Your task to perform on an android device: Open Google Maps Image 0: 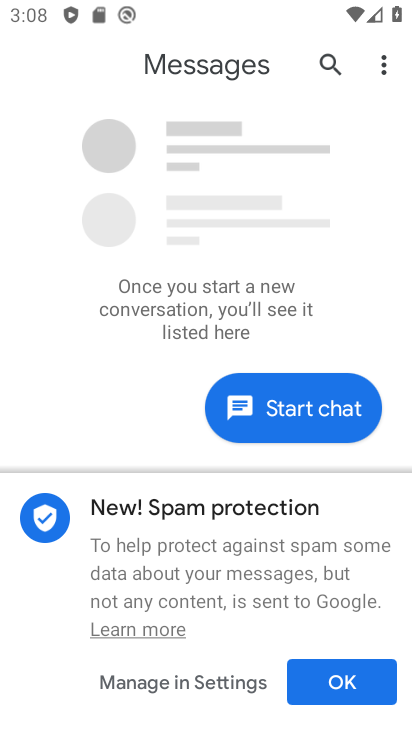
Step 0: press home button
Your task to perform on an android device: Open Google Maps Image 1: 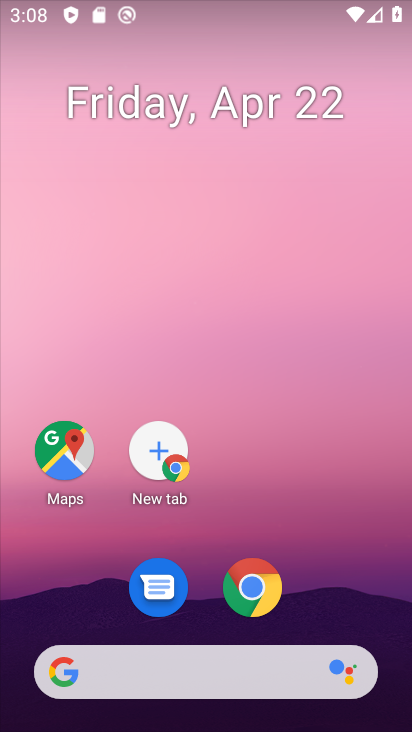
Step 1: click (64, 439)
Your task to perform on an android device: Open Google Maps Image 2: 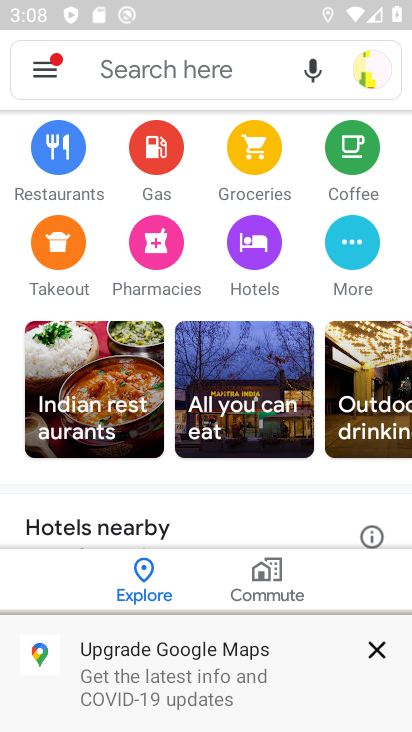
Step 2: task complete